Your task to perform on an android device: toggle airplane mode Image 0: 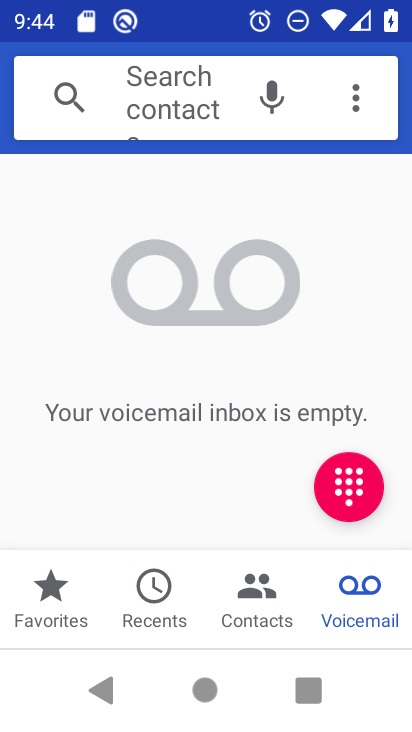
Step 0: press home button
Your task to perform on an android device: toggle airplane mode Image 1: 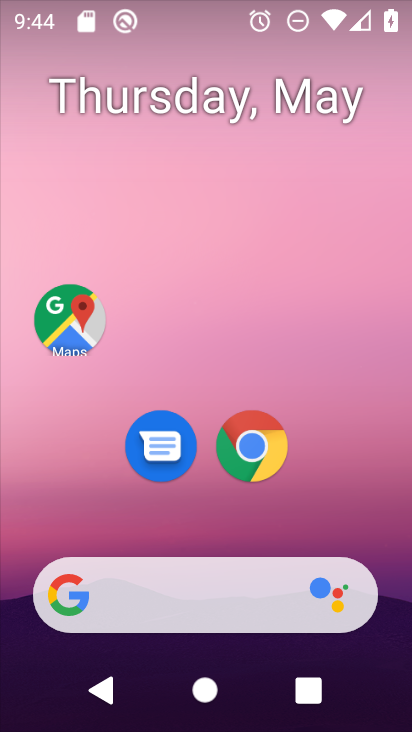
Step 1: drag from (353, 498) to (333, 161)
Your task to perform on an android device: toggle airplane mode Image 2: 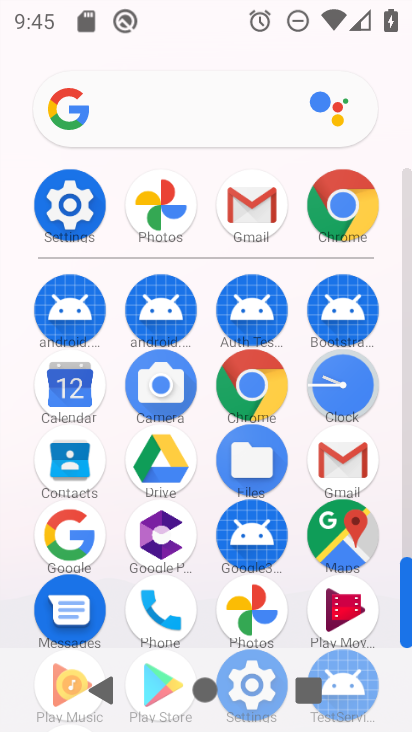
Step 2: click (82, 219)
Your task to perform on an android device: toggle airplane mode Image 3: 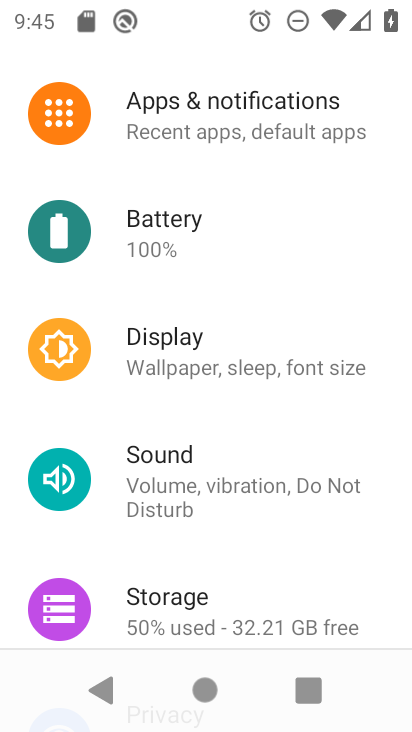
Step 3: drag from (260, 110) to (245, 610)
Your task to perform on an android device: toggle airplane mode Image 4: 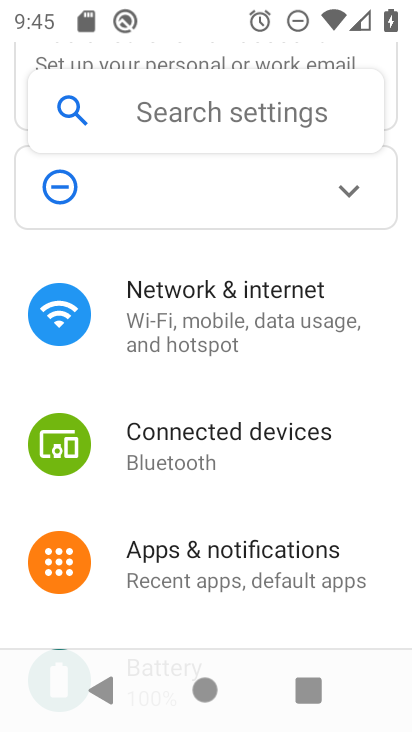
Step 4: click (290, 320)
Your task to perform on an android device: toggle airplane mode Image 5: 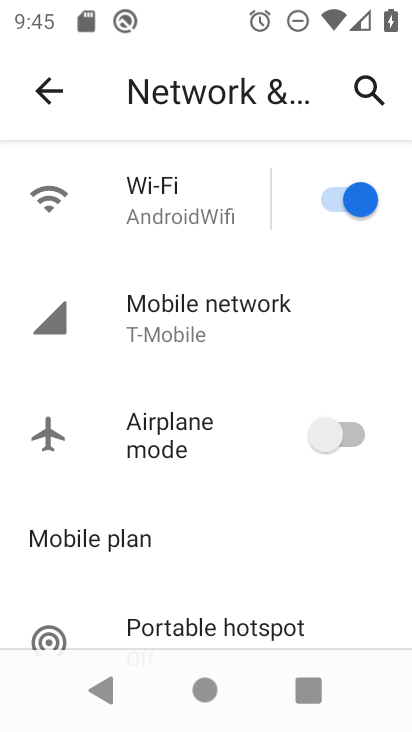
Step 5: click (341, 432)
Your task to perform on an android device: toggle airplane mode Image 6: 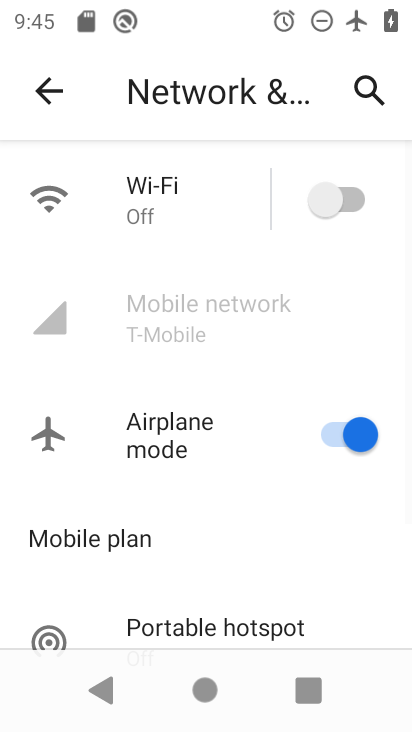
Step 6: task complete